Your task to perform on an android device: move a message to another label in the gmail app Image 0: 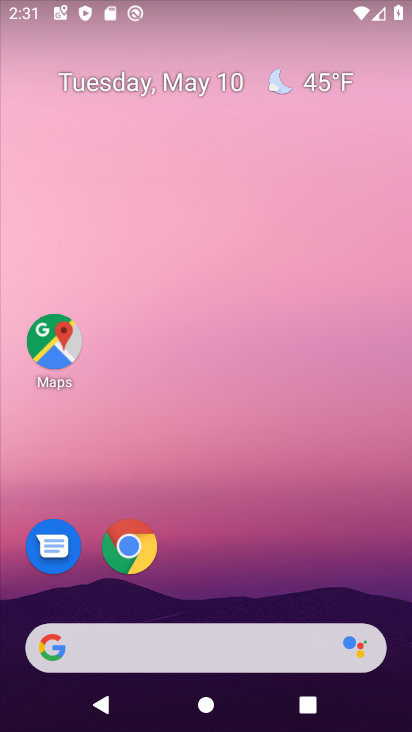
Step 0: drag from (224, 557) to (228, 22)
Your task to perform on an android device: move a message to another label in the gmail app Image 1: 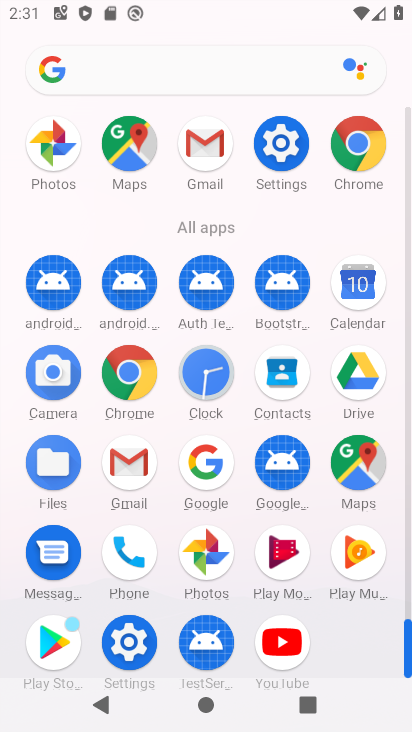
Step 1: drag from (0, 486) to (3, 168)
Your task to perform on an android device: move a message to another label in the gmail app Image 2: 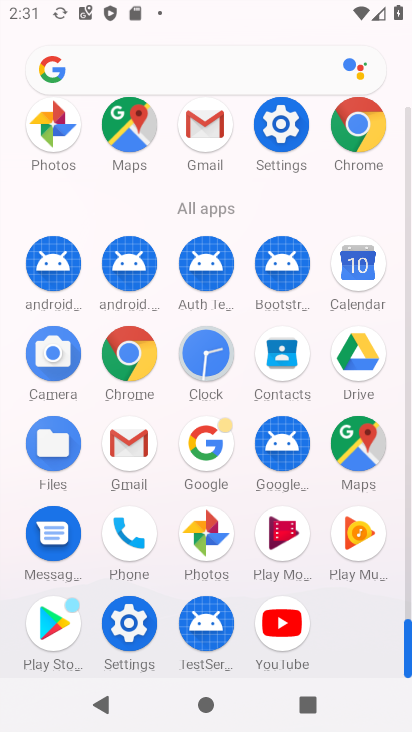
Step 2: click (204, 123)
Your task to perform on an android device: move a message to another label in the gmail app Image 3: 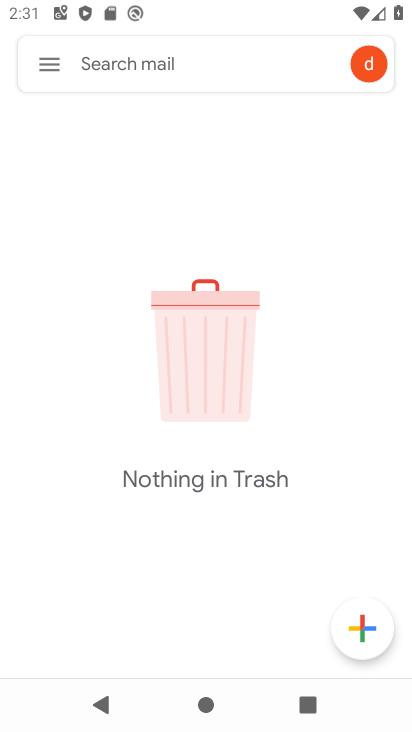
Step 3: click (58, 58)
Your task to perform on an android device: move a message to another label in the gmail app Image 4: 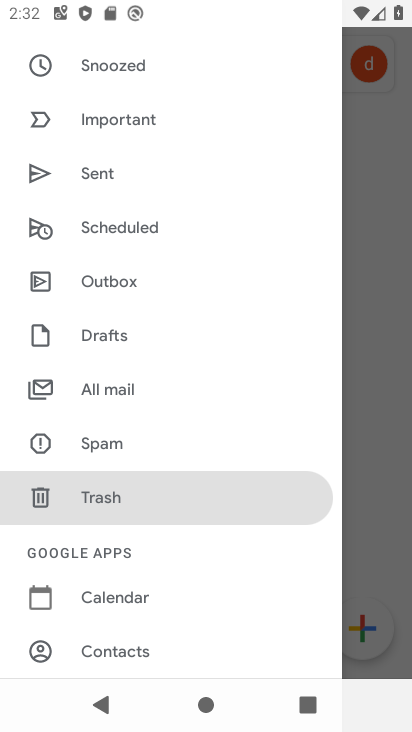
Step 4: drag from (206, 232) to (210, 484)
Your task to perform on an android device: move a message to another label in the gmail app Image 5: 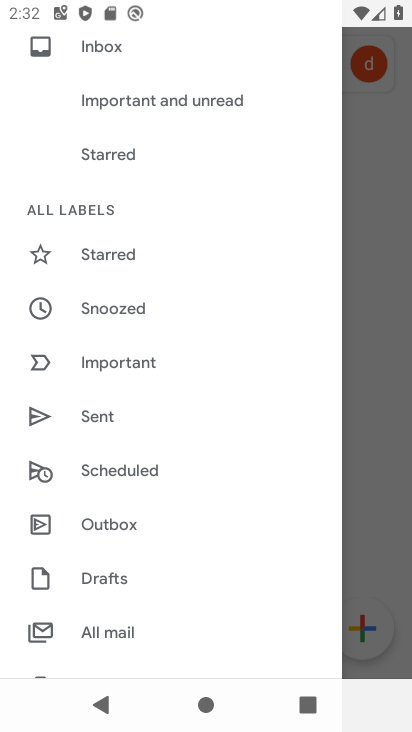
Step 5: drag from (202, 252) to (192, 571)
Your task to perform on an android device: move a message to another label in the gmail app Image 6: 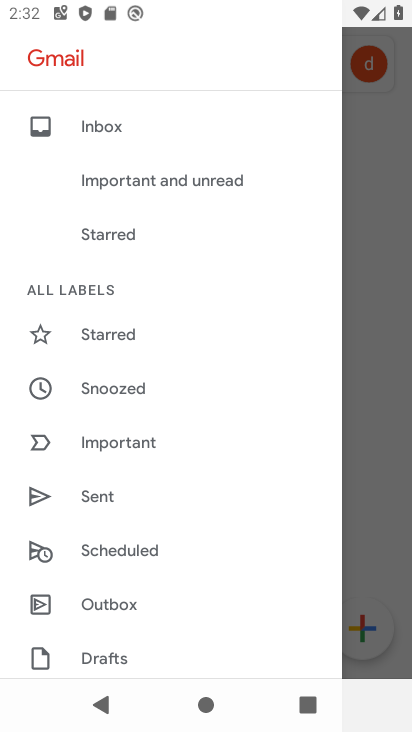
Step 6: drag from (226, 193) to (240, 628)
Your task to perform on an android device: move a message to another label in the gmail app Image 7: 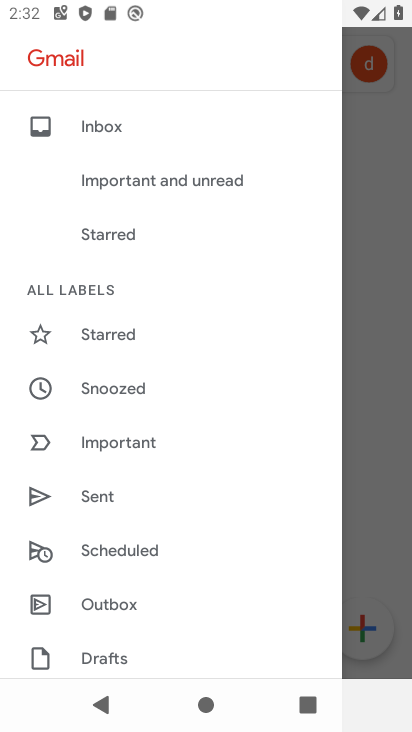
Step 7: drag from (154, 628) to (194, 177)
Your task to perform on an android device: move a message to another label in the gmail app Image 8: 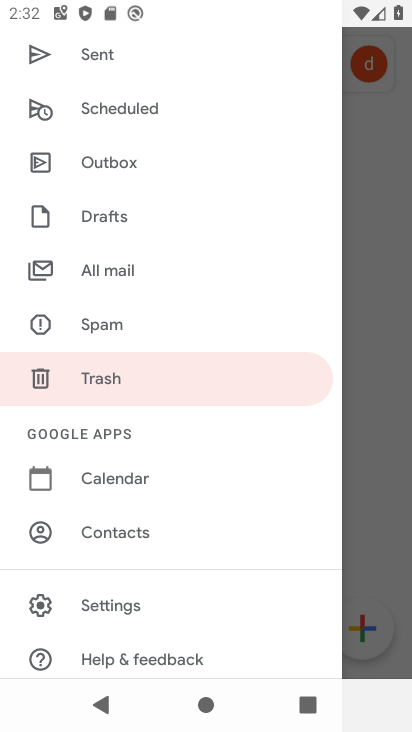
Step 8: click (140, 266)
Your task to perform on an android device: move a message to another label in the gmail app Image 9: 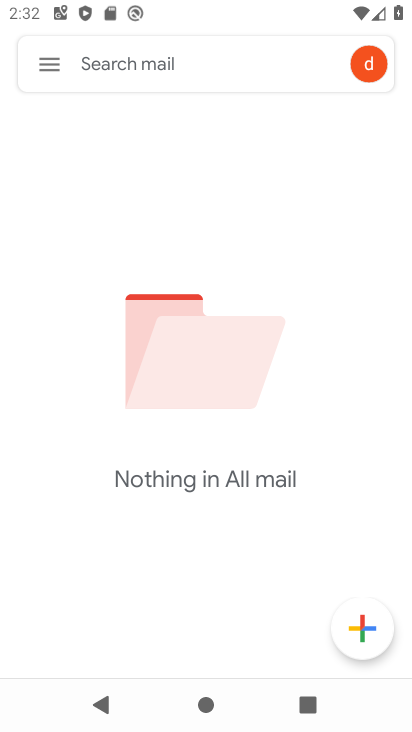
Step 9: click (27, 63)
Your task to perform on an android device: move a message to another label in the gmail app Image 10: 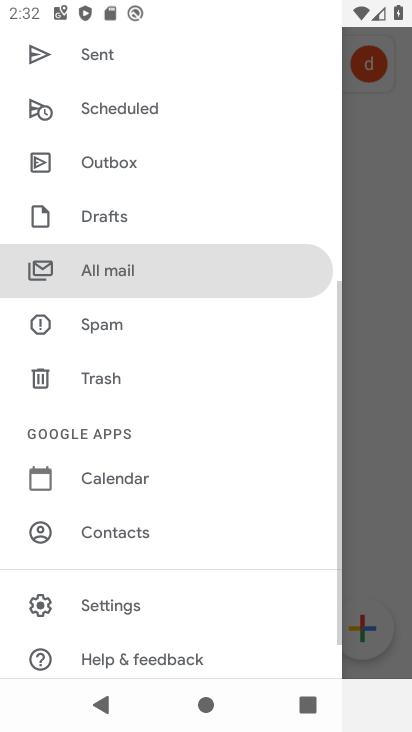
Step 10: drag from (231, 203) to (216, 538)
Your task to perform on an android device: move a message to another label in the gmail app Image 11: 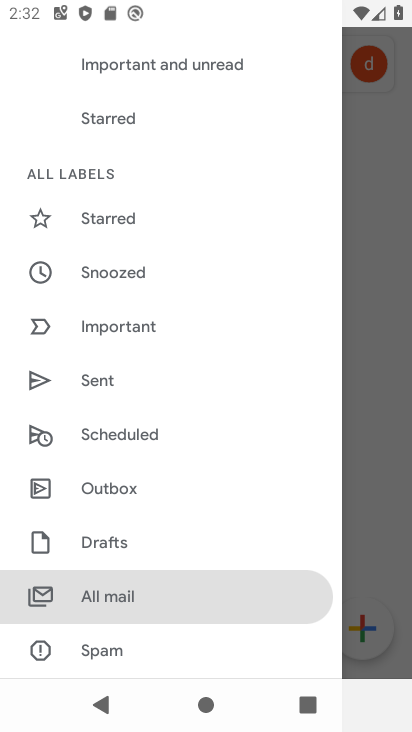
Step 11: drag from (159, 116) to (266, 589)
Your task to perform on an android device: move a message to another label in the gmail app Image 12: 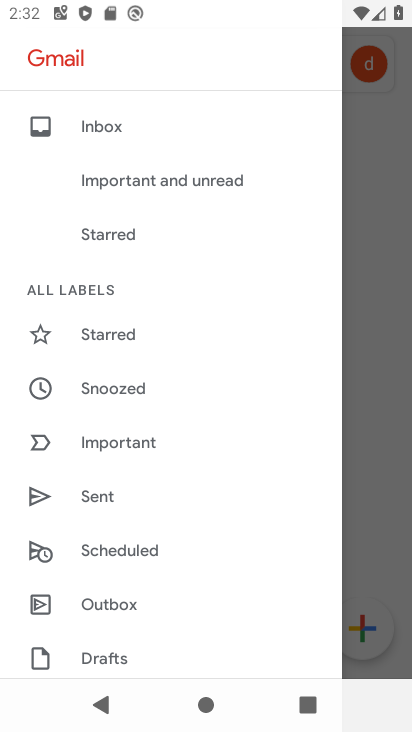
Step 12: click (131, 111)
Your task to perform on an android device: move a message to another label in the gmail app Image 13: 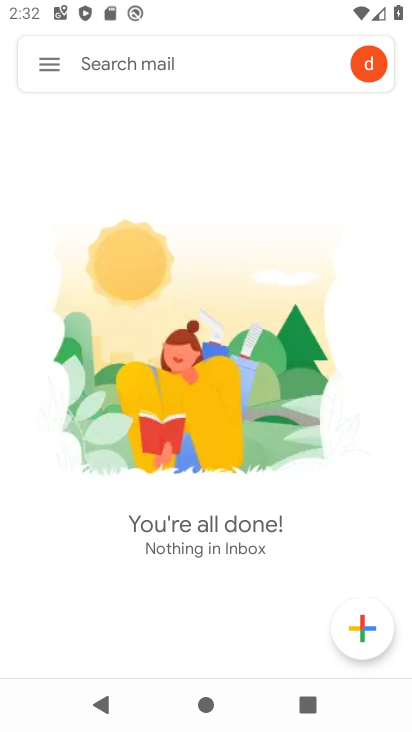
Step 13: task complete